Your task to perform on an android device: Go to notification settings Image 0: 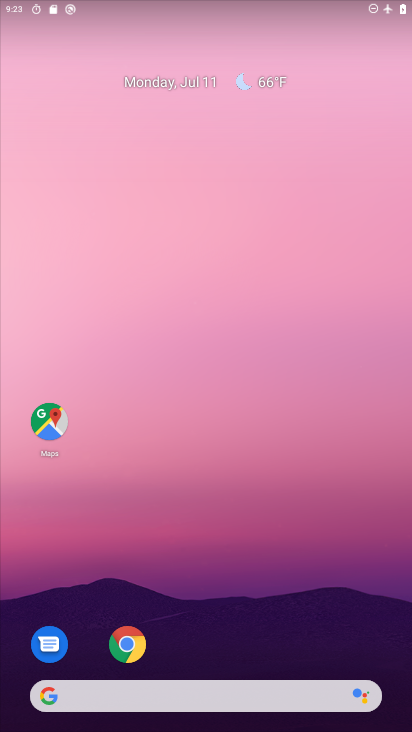
Step 0: drag from (349, 597) to (280, 88)
Your task to perform on an android device: Go to notification settings Image 1: 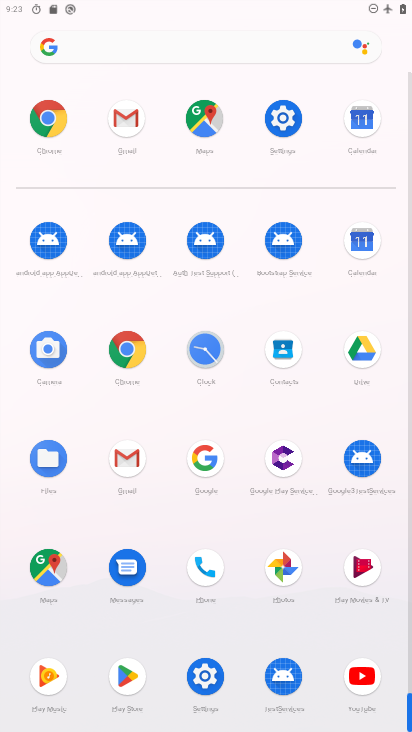
Step 1: click (294, 114)
Your task to perform on an android device: Go to notification settings Image 2: 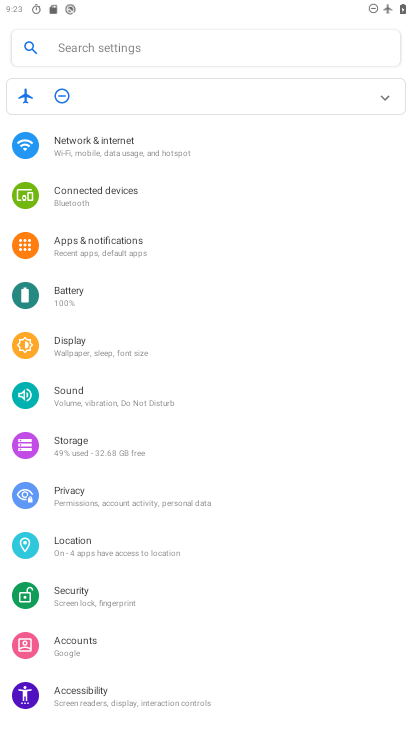
Step 2: click (125, 246)
Your task to perform on an android device: Go to notification settings Image 3: 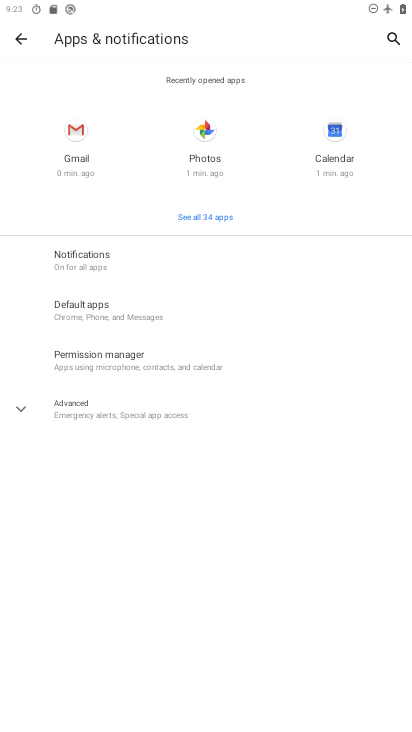
Step 3: click (97, 259)
Your task to perform on an android device: Go to notification settings Image 4: 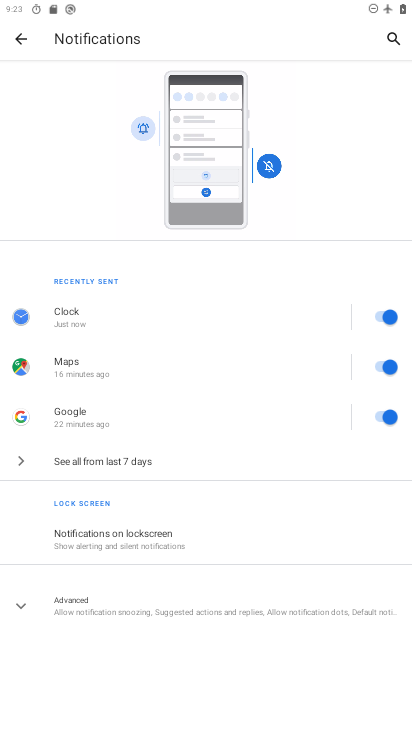
Step 4: task complete